Your task to perform on an android device: Clear the shopping cart on amazon.com. Add macbook pro 15 inch to the cart on amazon.com Image 0: 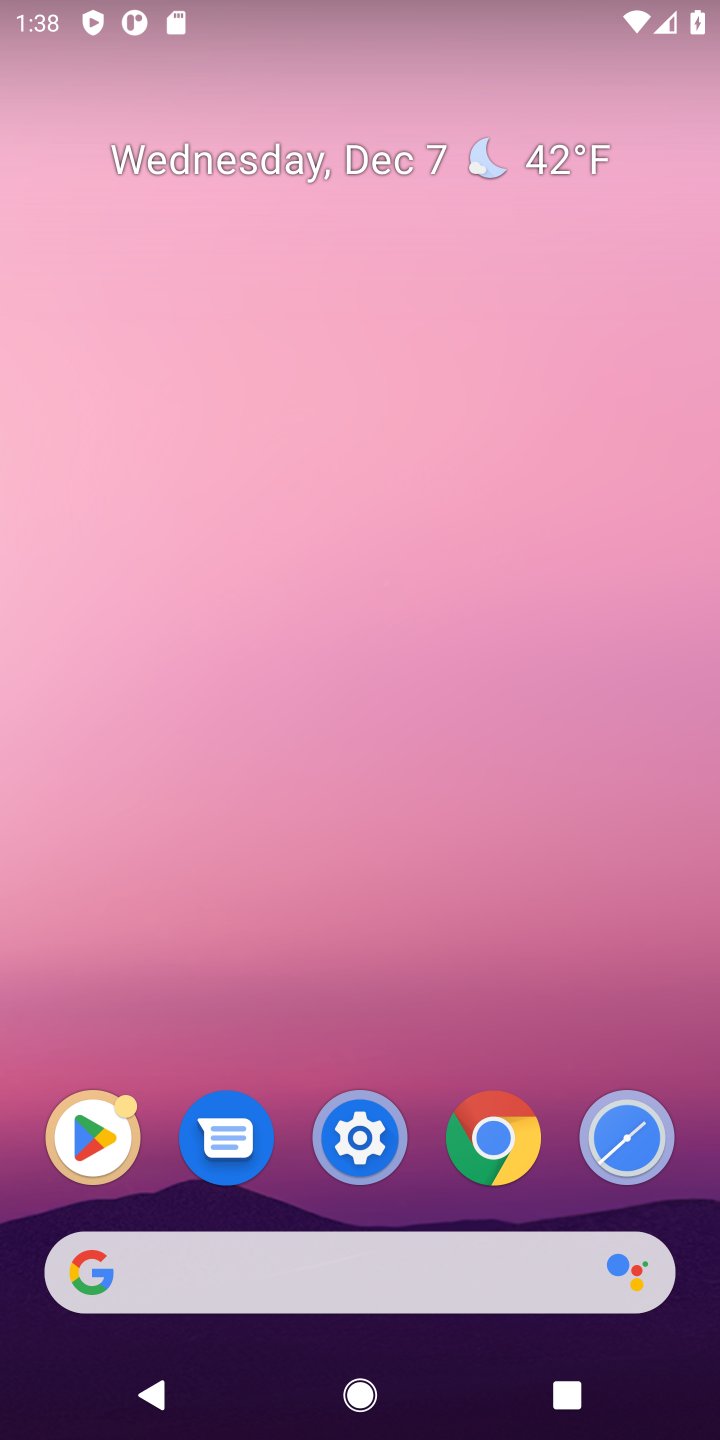
Step 0: click (270, 1239)
Your task to perform on an android device: Clear the shopping cart on amazon.com. Add macbook pro 15 inch to the cart on amazon.com Image 1: 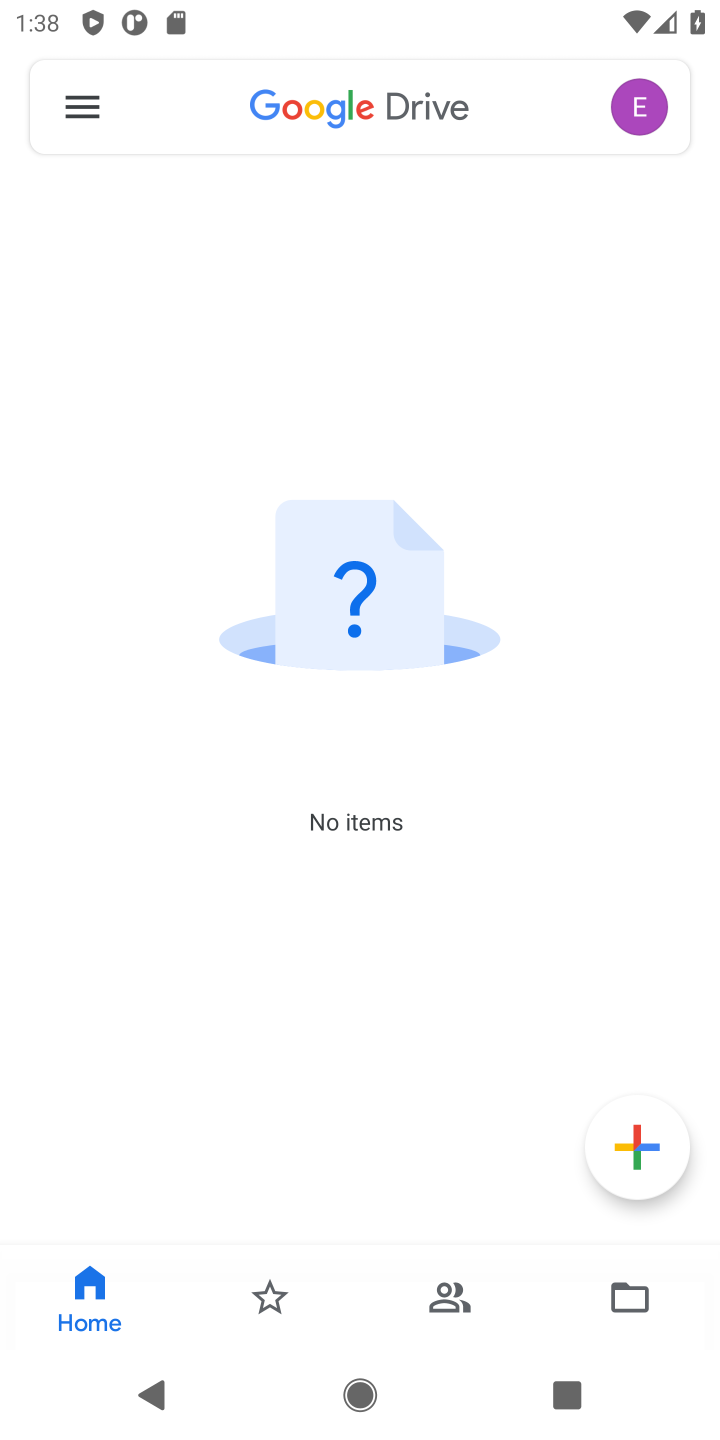
Step 1: type "newegg"
Your task to perform on an android device: Clear the shopping cart on amazon.com. Add macbook pro 15 inch to the cart on amazon.com Image 2: 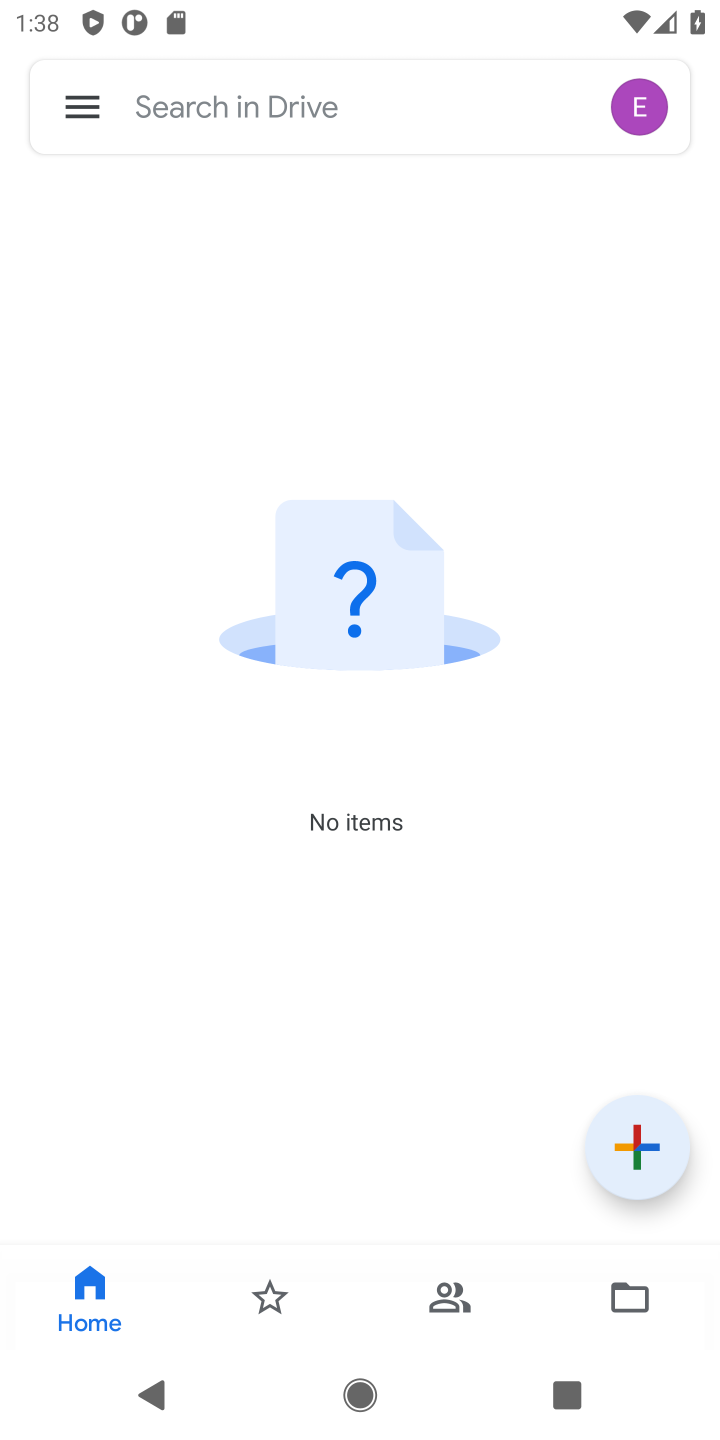
Step 2: press home button
Your task to perform on an android device: Clear the shopping cart on amazon.com. Add macbook pro 15 inch to the cart on amazon.com Image 3: 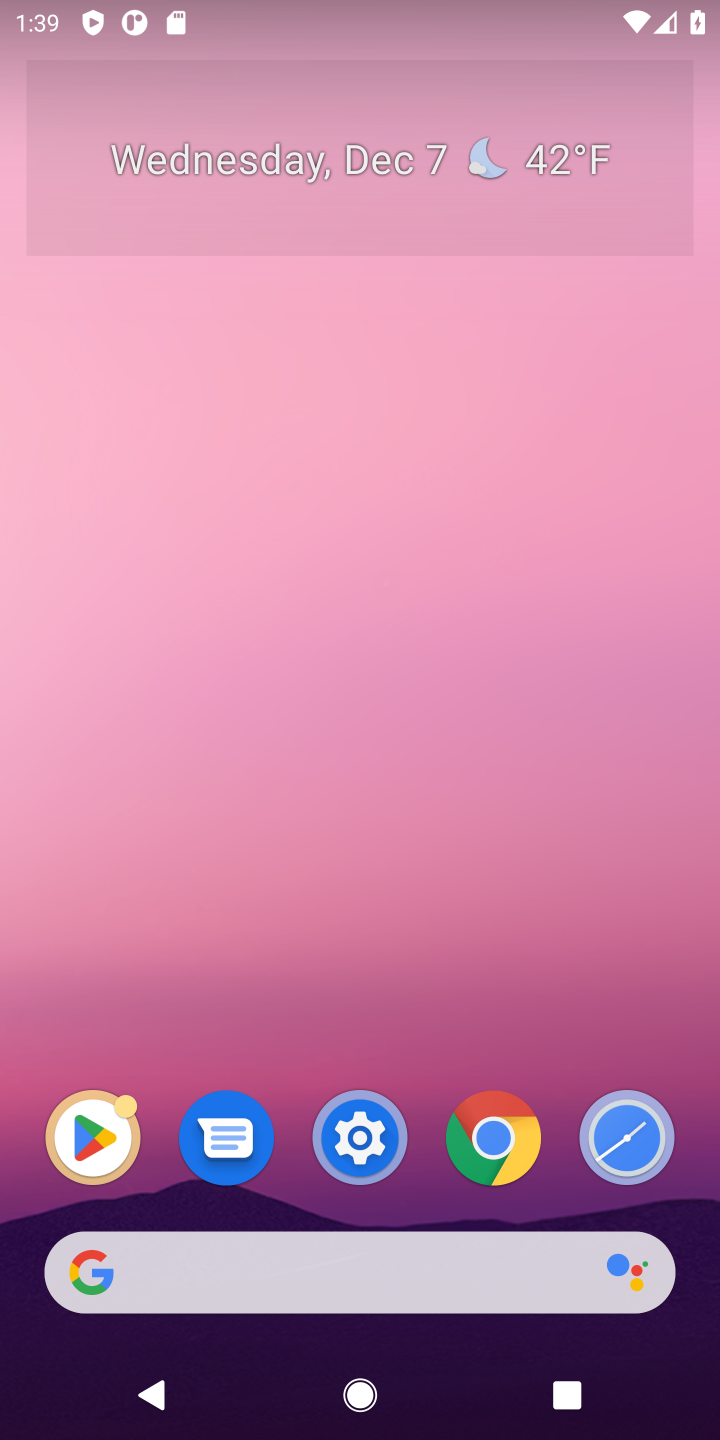
Step 3: click (294, 1262)
Your task to perform on an android device: Clear the shopping cart on amazon.com. Add macbook pro 15 inch to the cart on amazon.com Image 4: 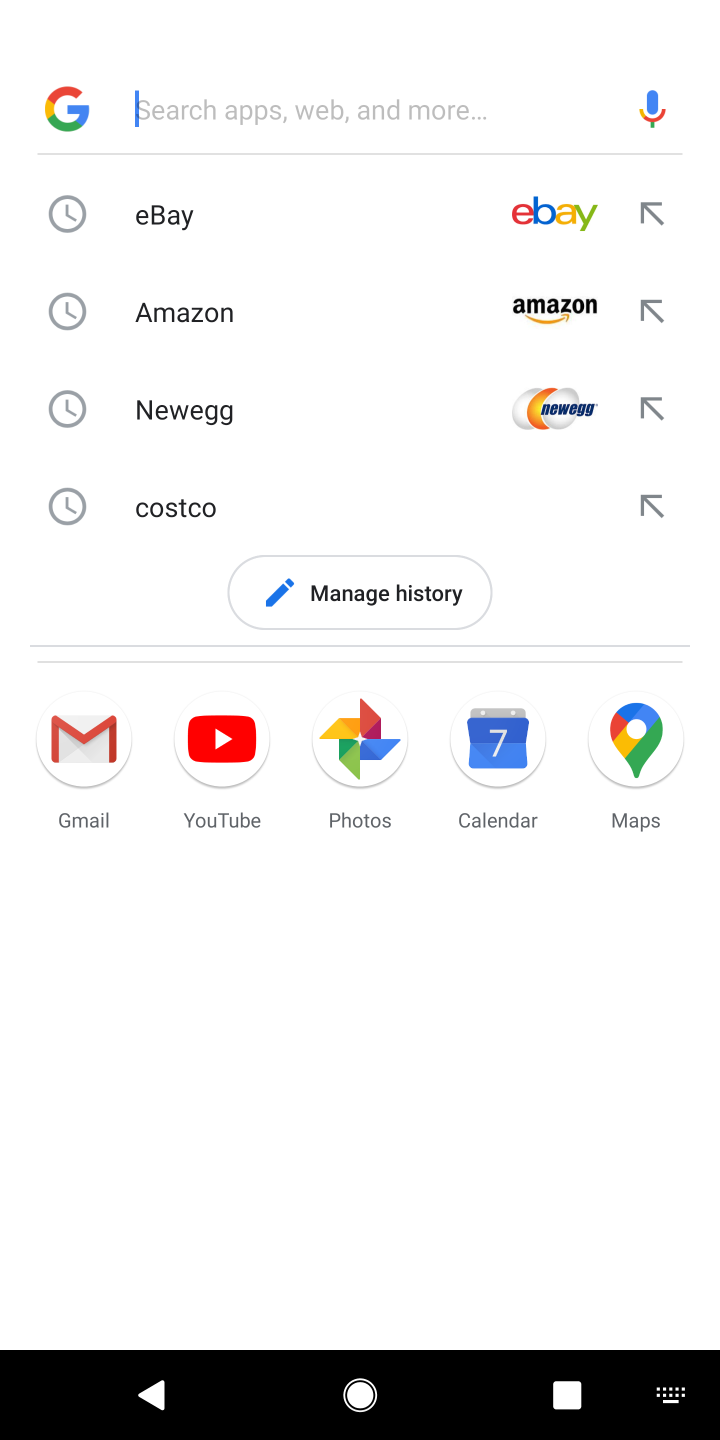
Step 4: click (286, 332)
Your task to perform on an android device: Clear the shopping cart on amazon.com. Add macbook pro 15 inch to the cart on amazon.com Image 5: 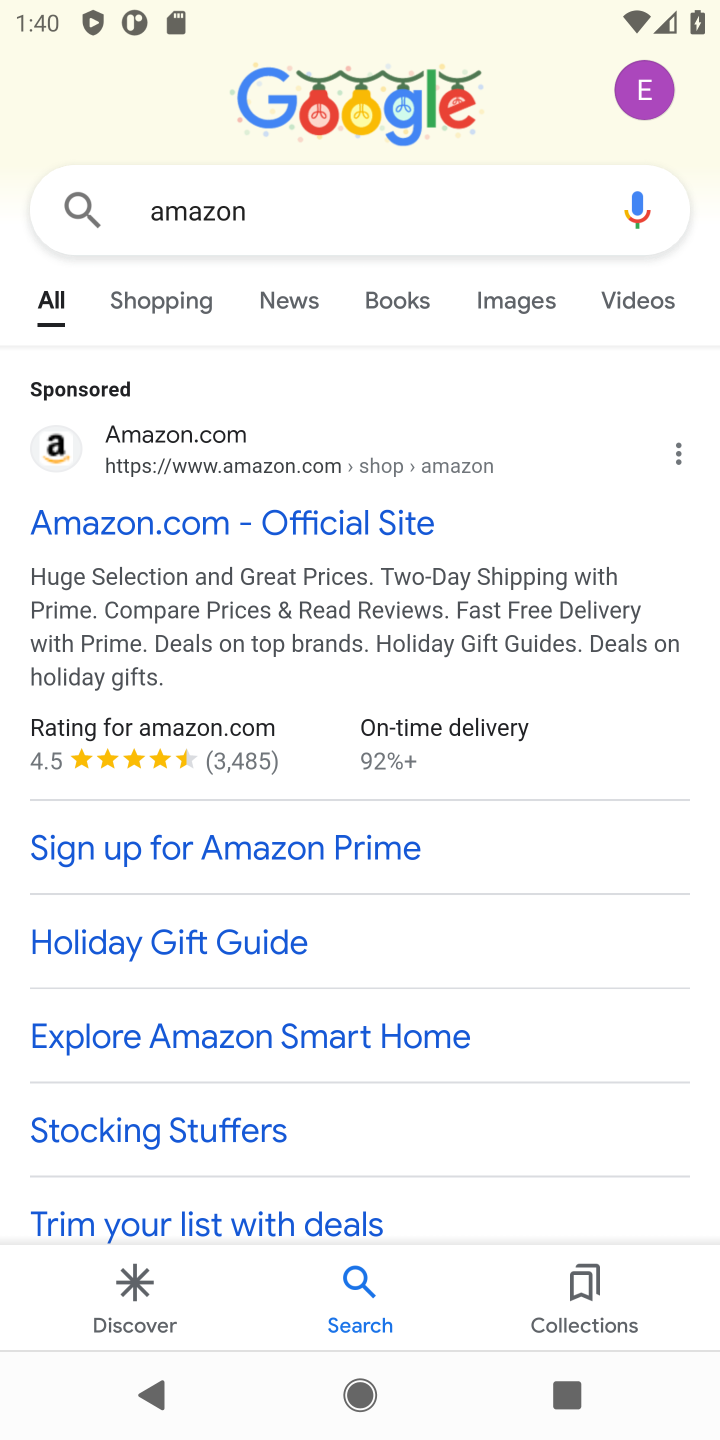
Step 5: click (163, 544)
Your task to perform on an android device: Clear the shopping cart on amazon.com. Add macbook pro 15 inch to the cart on amazon.com Image 6: 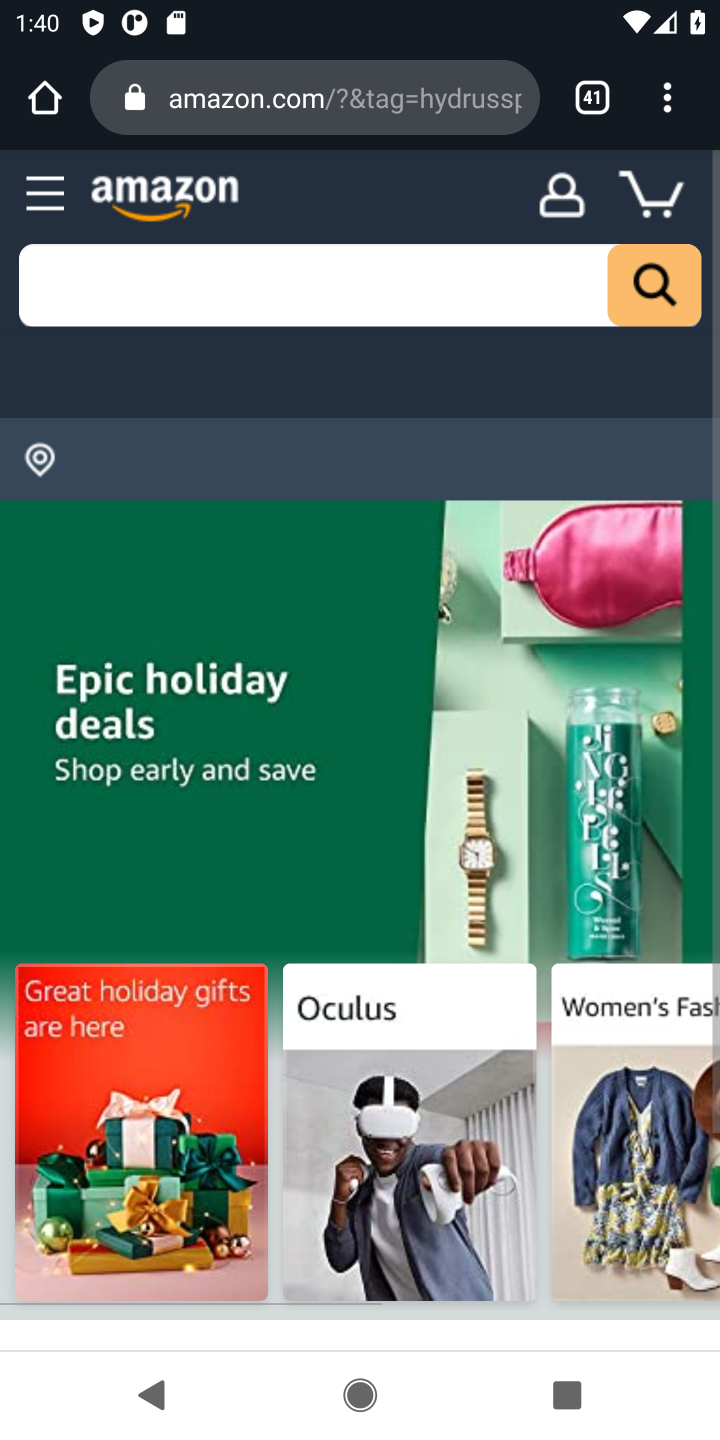
Step 6: task complete